Your task to perform on an android device: Is it going to rain this weekend? Image 0: 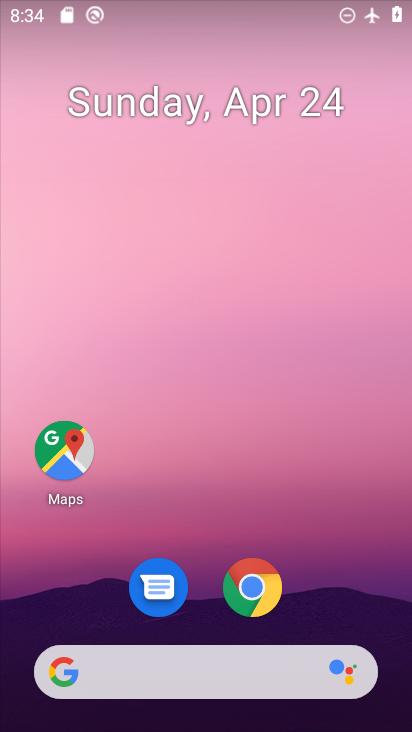
Step 0: drag from (380, 564) to (349, 190)
Your task to perform on an android device: Is it going to rain this weekend? Image 1: 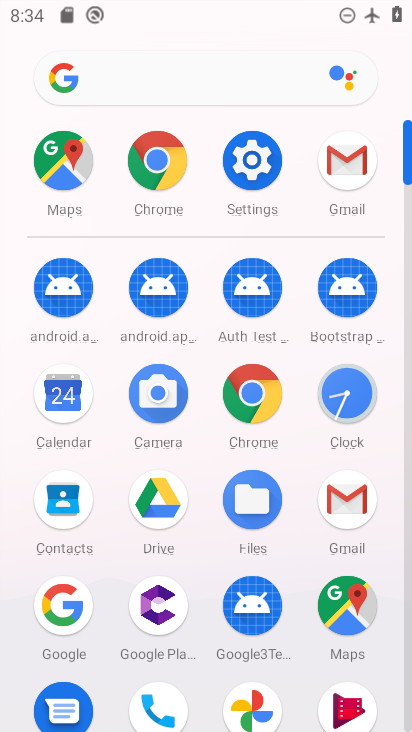
Step 1: click (264, 397)
Your task to perform on an android device: Is it going to rain this weekend? Image 2: 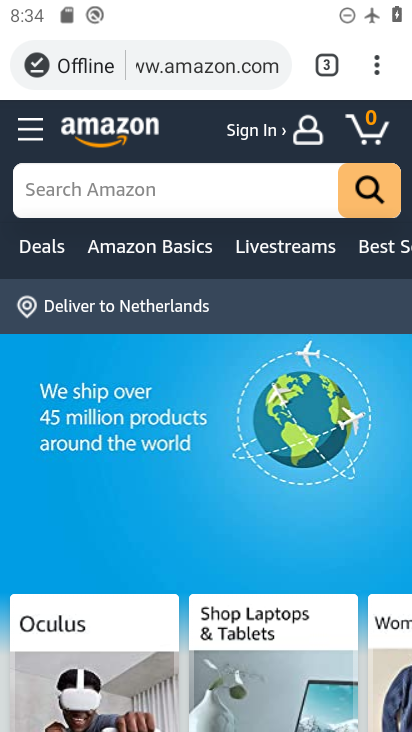
Step 2: click (222, 62)
Your task to perform on an android device: Is it going to rain this weekend? Image 3: 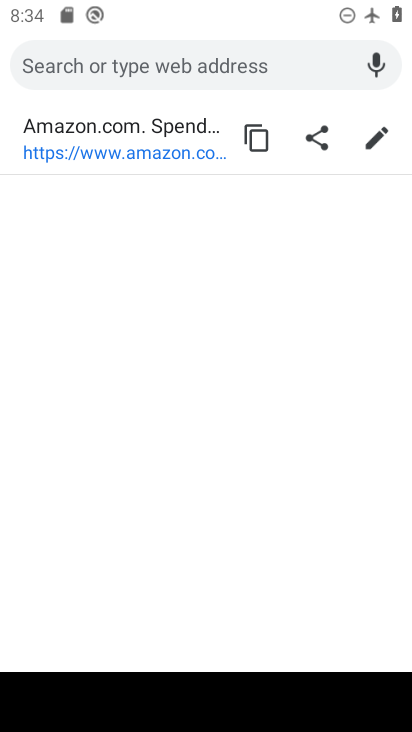
Step 3: type "is it going to rain this weekend"
Your task to perform on an android device: Is it going to rain this weekend? Image 4: 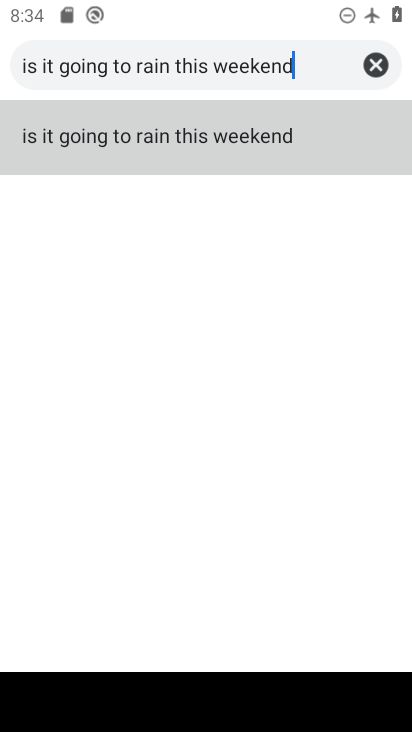
Step 4: click (197, 133)
Your task to perform on an android device: Is it going to rain this weekend? Image 5: 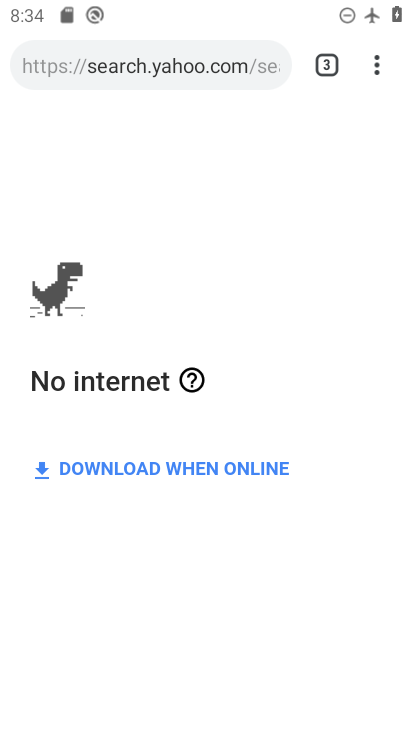
Step 5: task complete